Your task to perform on an android device: Open Google Chrome Image 0: 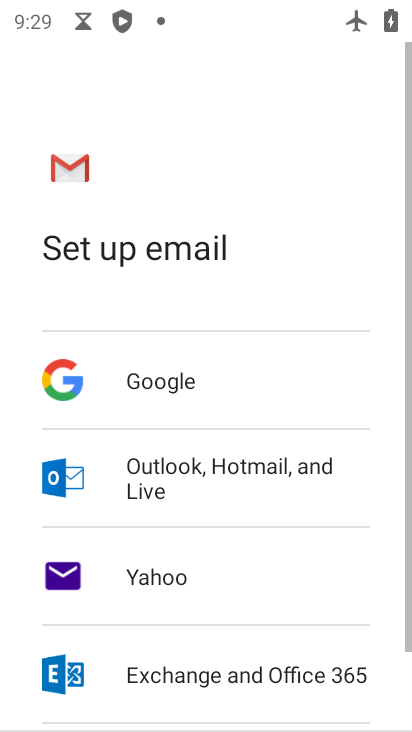
Step 0: press home button
Your task to perform on an android device: Open Google Chrome Image 1: 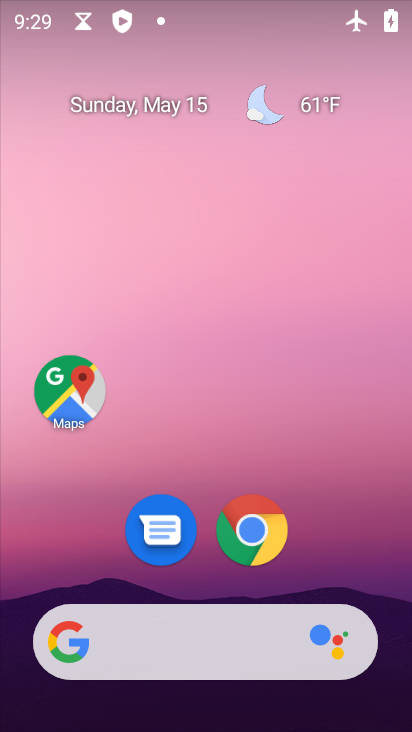
Step 1: click (254, 529)
Your task to perform on an android device: Open Google Chrome Image 2: 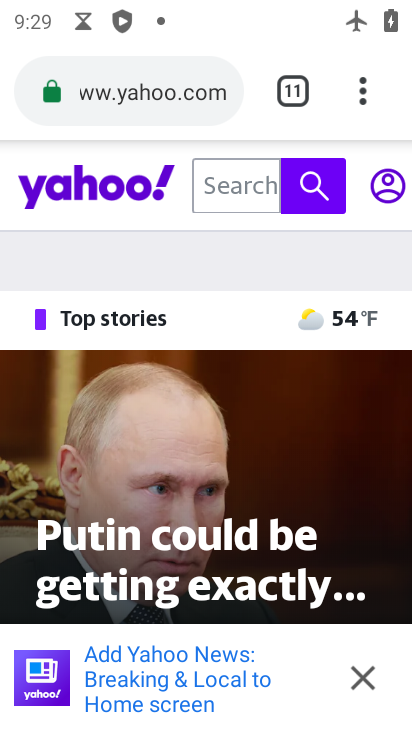
Step 2: task complete